Your task to perform on an android device: Open Google Chrome Image 0: 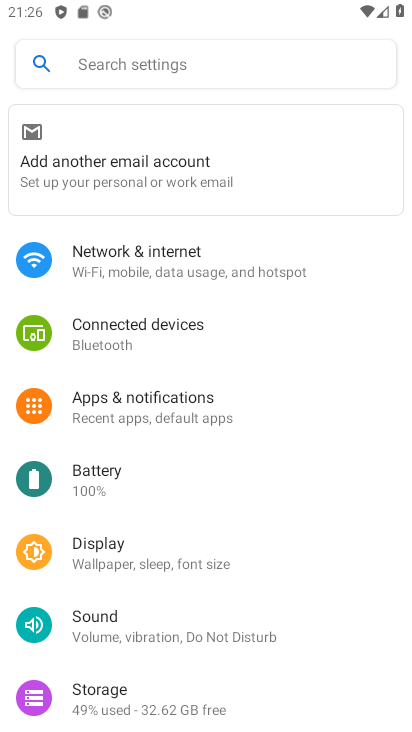
Step 0: press home button
Your task to perform on an android device: Open Google Chrome Image 1: 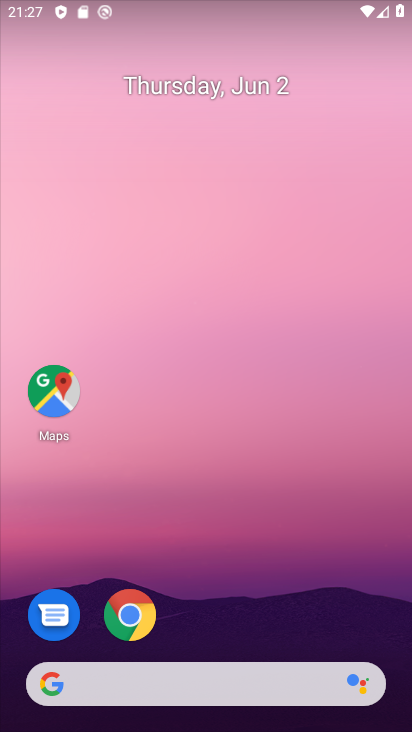
Step 1: click (131, 617)
Your task to perform on an android device: Open Google Chrome Image 2: 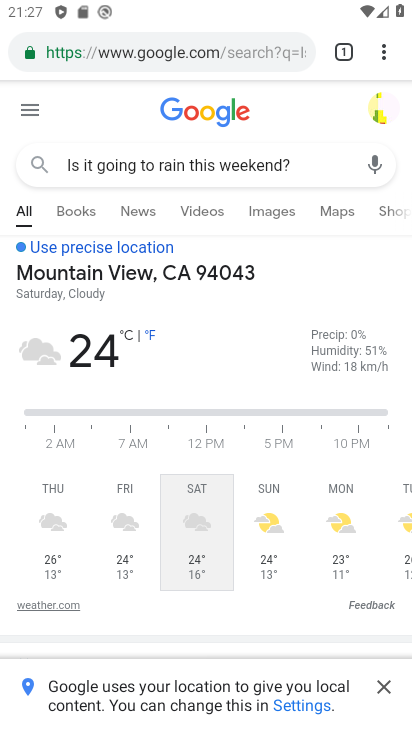
Step 2: task complete